Your task to perform on an android device: Open eBay Image 0: 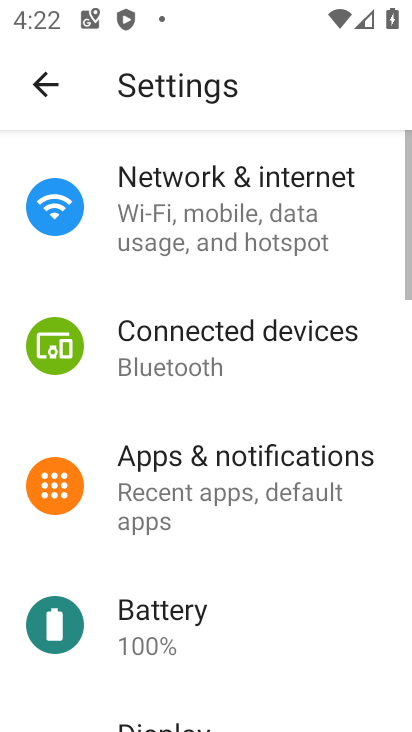
Step 0: press home button
Your task to perform on an android device: Open eBay Image 1: 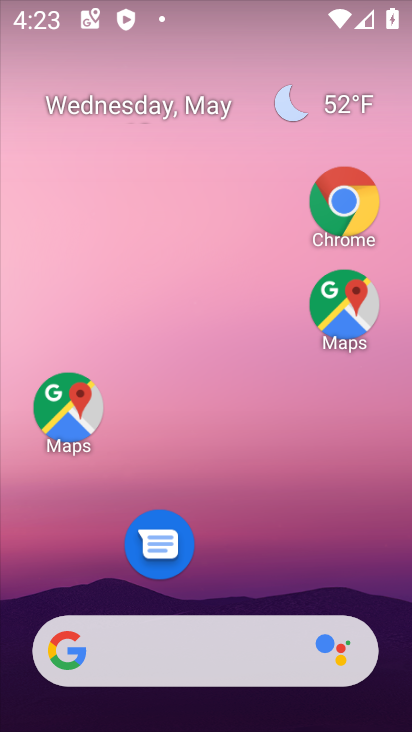
Step 1: click (333, 213)
Your task to perform on an android device: Open eBay Image 2: 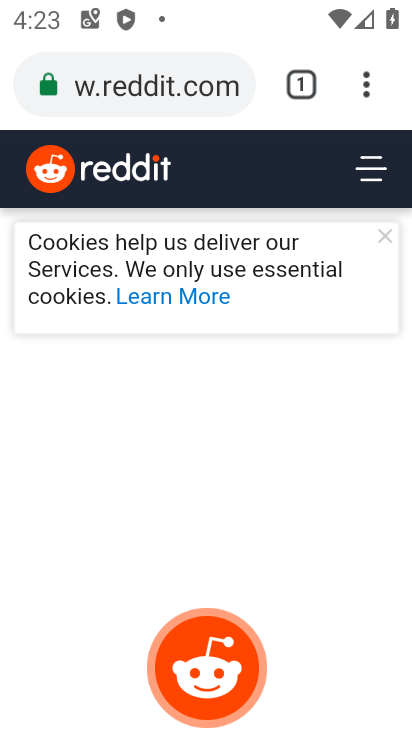
Step 2: press back button
Your task to perform on an android device: Open eBay Image 3: 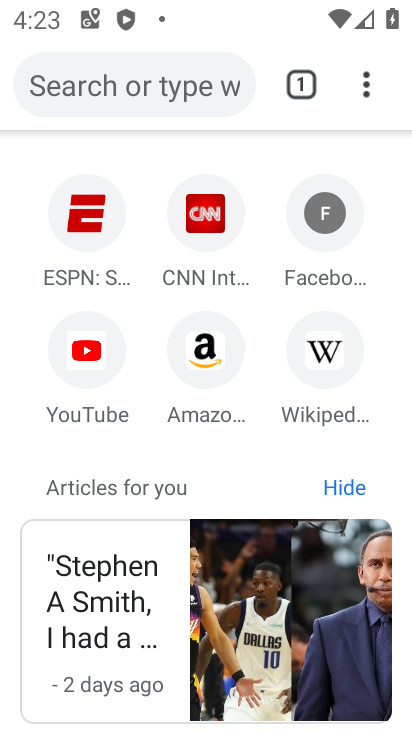
Step 3: click (184, 70)
Your task to perform on an android device: Open eBay Image 4: 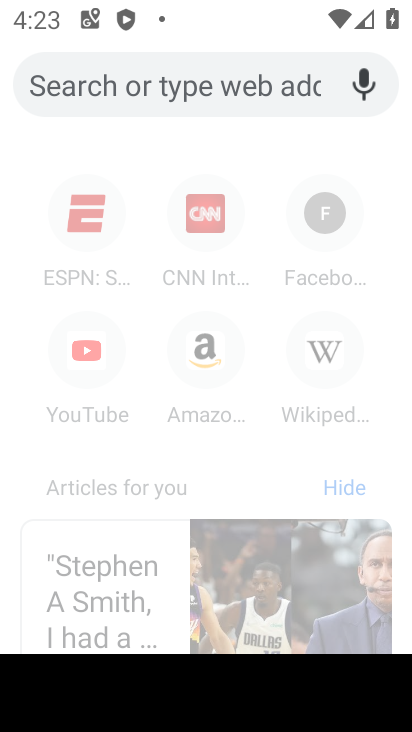
Step 4: type "www.ebay.com"
Your task to perform on an android device: Open eBay Image 5: 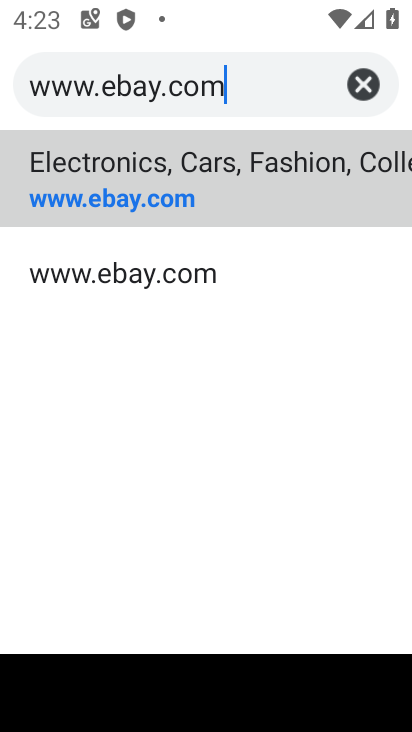
Step 5: click (150, 203)
Your task to perform on an android device: Open eBay Image 6: 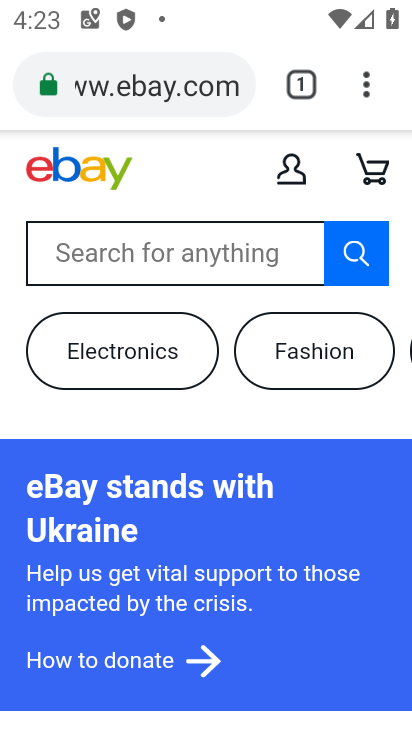
Step 6: task complete